Your task to perform on an android device: What is the speed of a cheetah? Image 0: 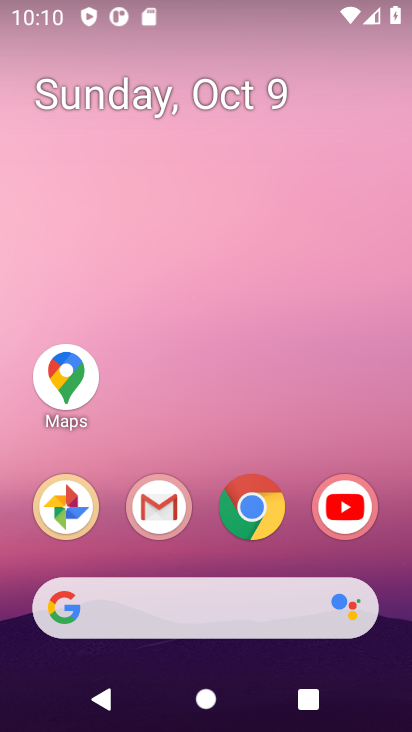
Step 0: drag from (295, 559) to (233, 0)
Your task to perform on an android device: What is the speed of a cheetah? Image 1: 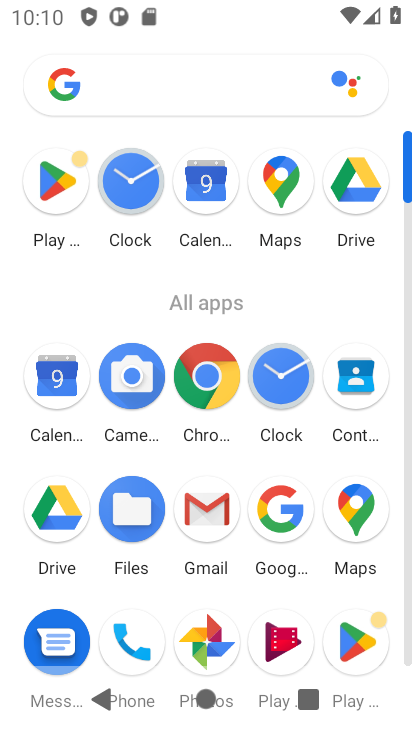
Step 1: click (197, 375)
Your task to perform on an android device: What is the speed of a cheetah? Image 2: 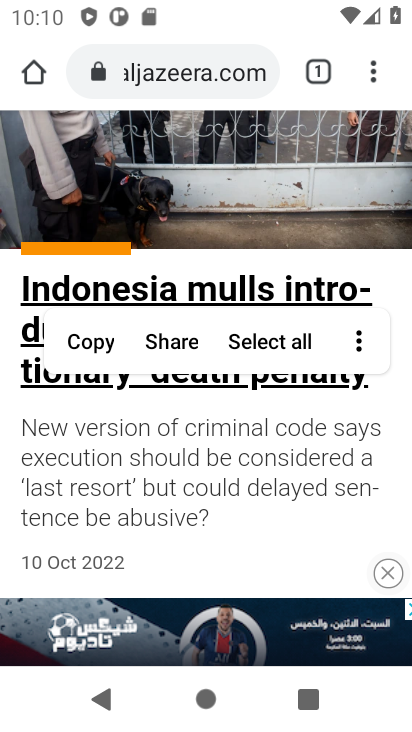
Step 2: click (192, 77)
Your task to perform on an android device: What is the speed of a cheetah? Image 3: 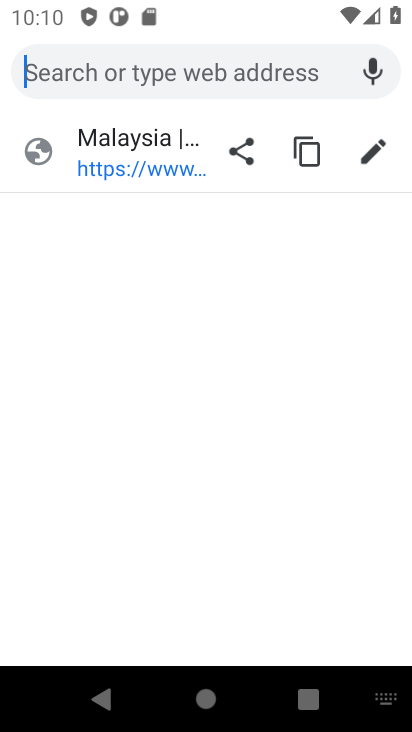
Step 3: type "What is the speed of a cheetah?"
Your task to perform on an android device: What is the speed of a cheetah? Image 4: 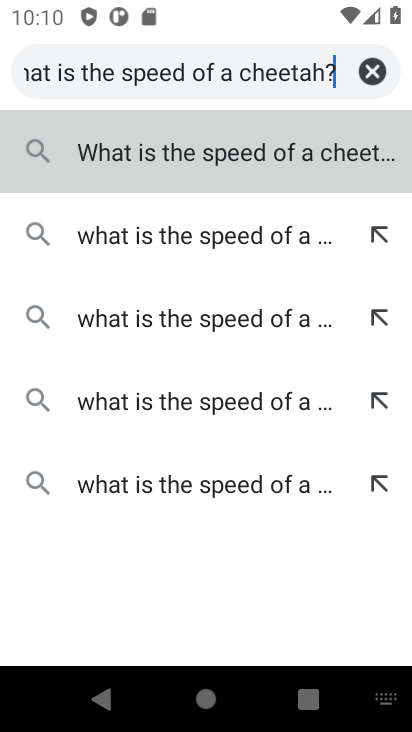
Step 4: press enter
Your task to perform on an android device: What is the speed of a cheetah? Image 5: 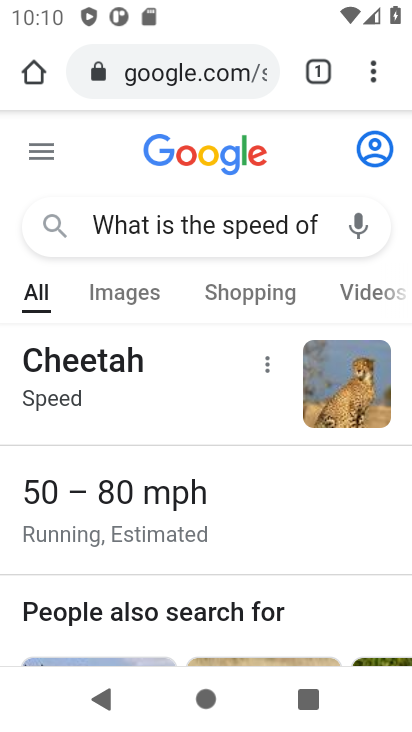
Step 5: task complete